Your task to perform on an android device: turn off data saver in the chrome app Image 0: 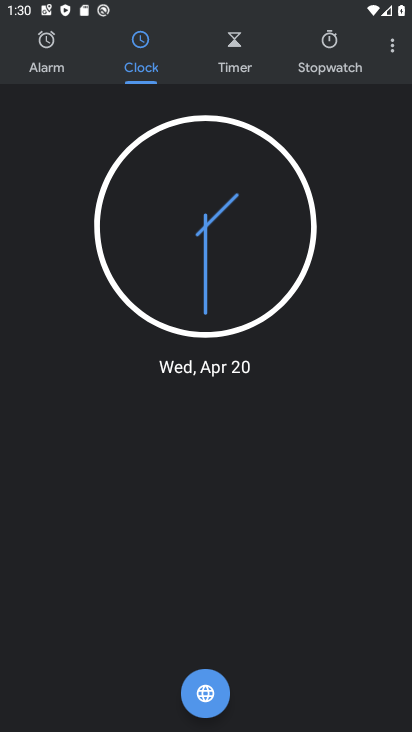
Step 0: press home button
Your task to perform on an android device: turn off data saver in the chrome app Image 1: 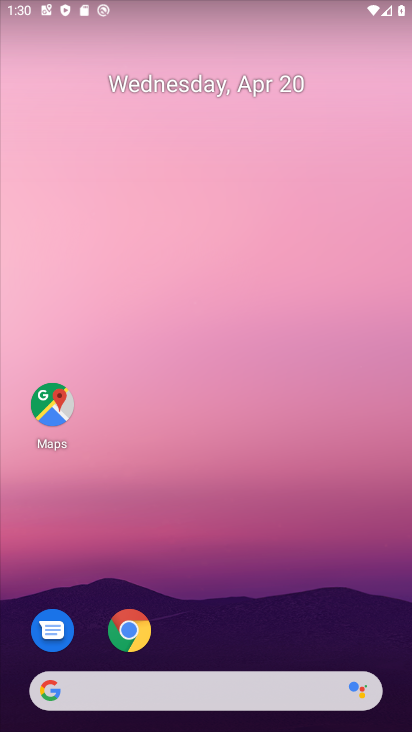
Step 1: drag from (387, 561) to (388, 187)
Your task to perform on an android device: turn off data saver in the chrome app Image 2: 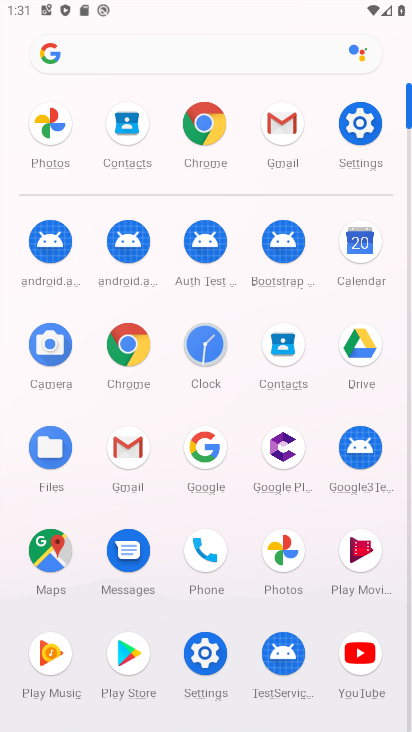
Step 2: click (142, 346)
Your task to perform on an android device: turn off data saver in the chrome app Image 3: 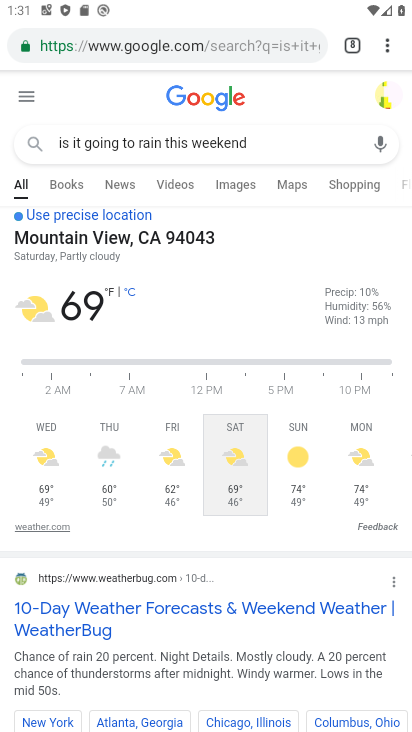
Step 3: click (391, 58)
Your task to perform on an android device: turn off data saver in the chrome app Image 4: 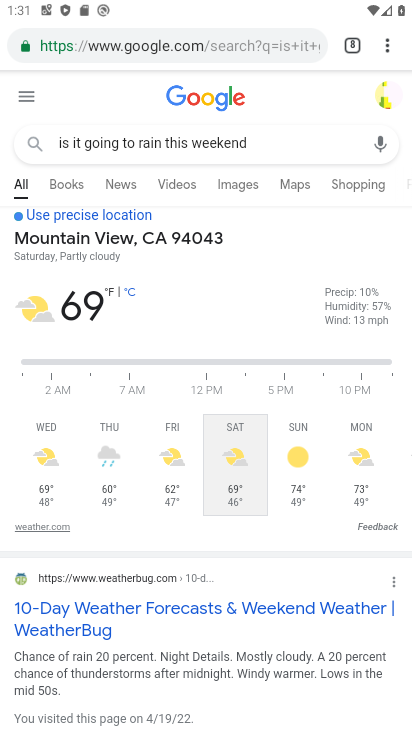
Step 4: drag from (395, 52) to (243, 507)
Your task to perform on an android device: turn off data saver in the chrome app Image 5: 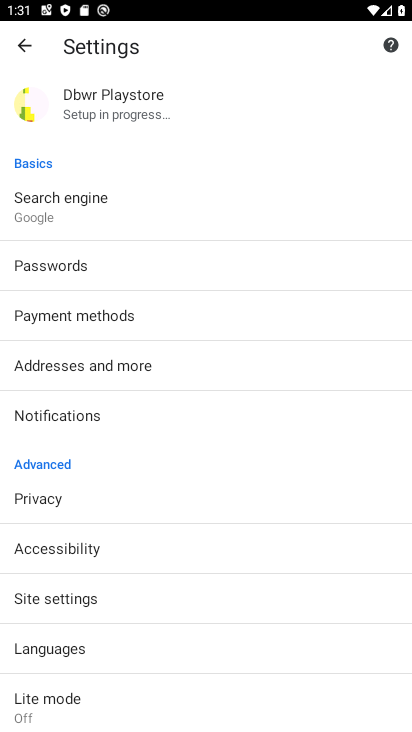
Step 5: drag from (226, 680) to (250, 235)
Your task to perform on an android device: turn off data saver in the chrome app Image 6: 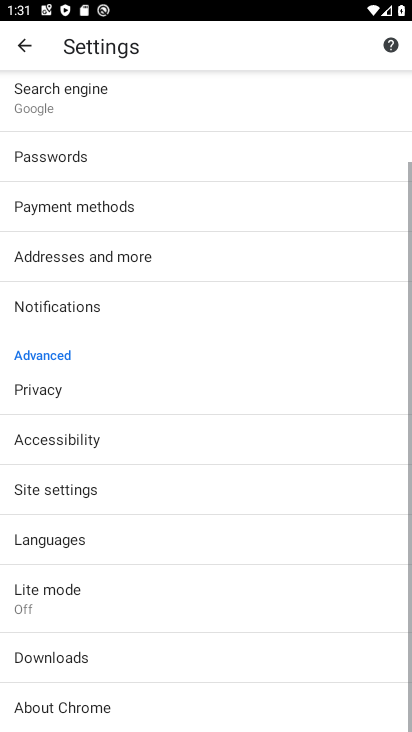
Step 6: click (176, 605)
Your task to perform on an android device: turn off data saver in the chrome app Image 7: 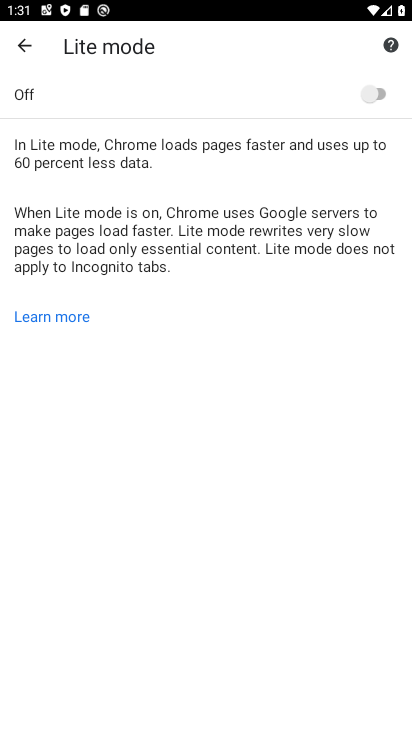
Step 7: task complete